Your task to perform on an android device: add a contact Image 0: 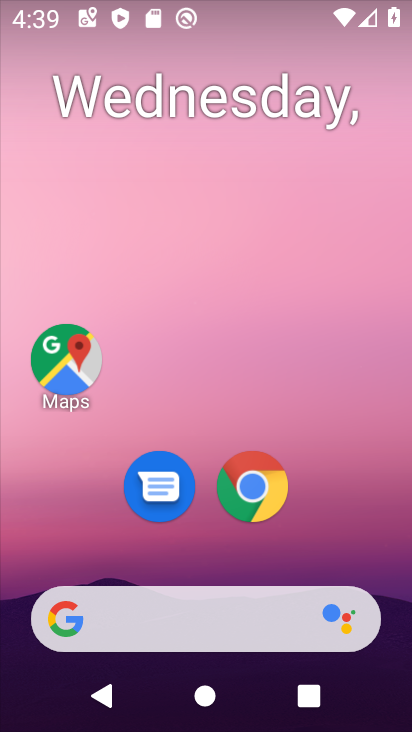
Step 0: drag from (156, 463) to (203, 126)
Your task to perform on an android device: add a contact Image 1: 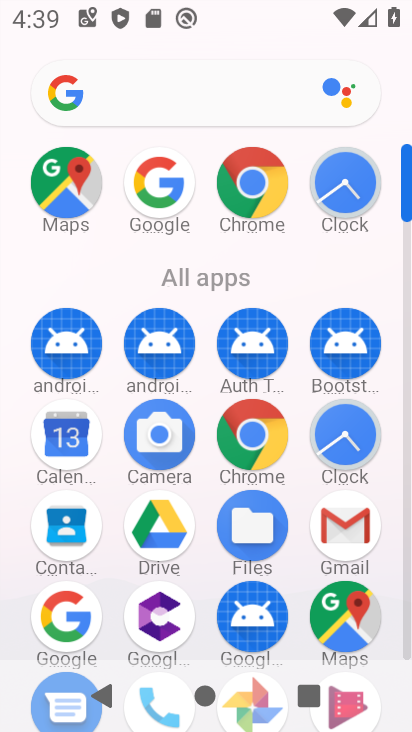
Step 1: click (79, 526)
Your task to perform on an android device: add a contact Image 2: 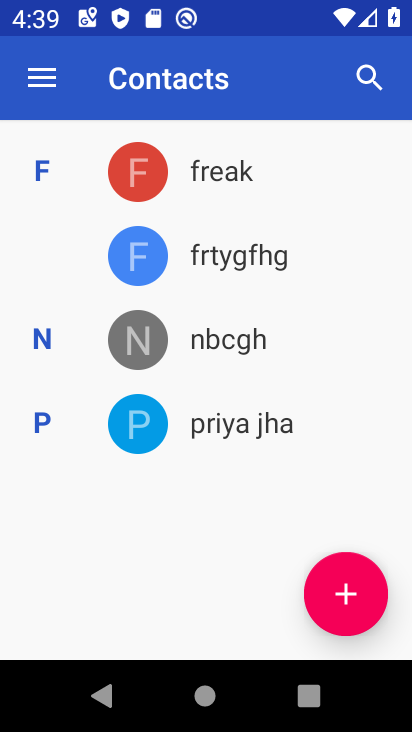
Step 2: click (335, 578)
Your task to perform on an android device: add a contact Image 3: 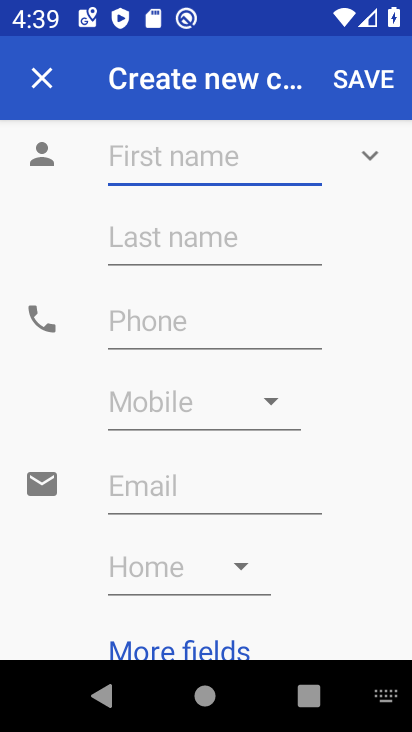
Step 3: type "jhfhjk"
Your task to perform on an android device: add a contact Image 4: 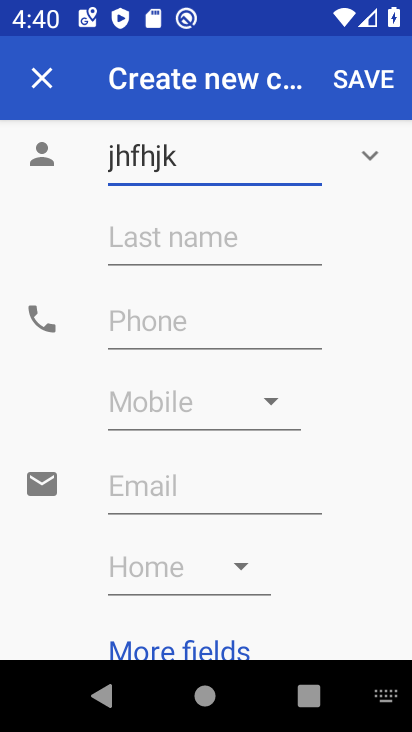
Step 4: click (160, 328)
Your task to perform on an android device: add a contact Image 5: 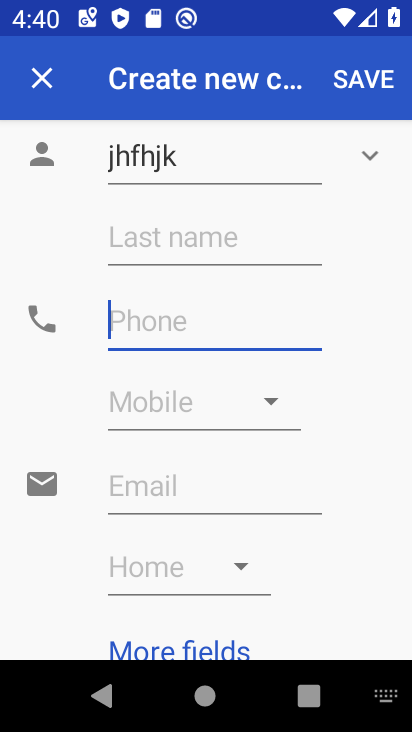
Step 5: type "3456776"
Your task to perform on an android device: add a contact Image 6: 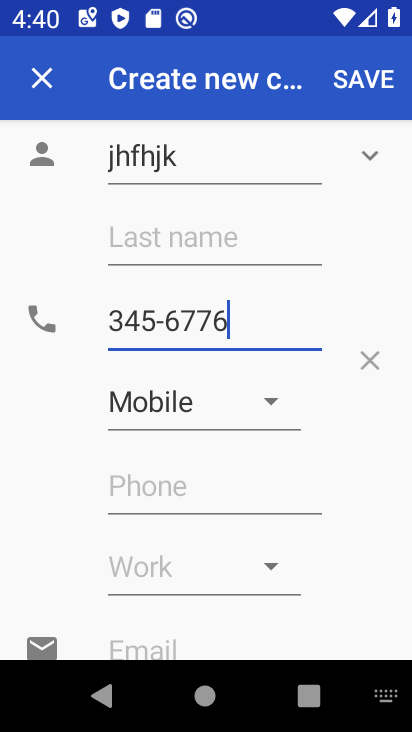
Step 6: type ""
Your task to perform on an android device: add a contact Image 7: 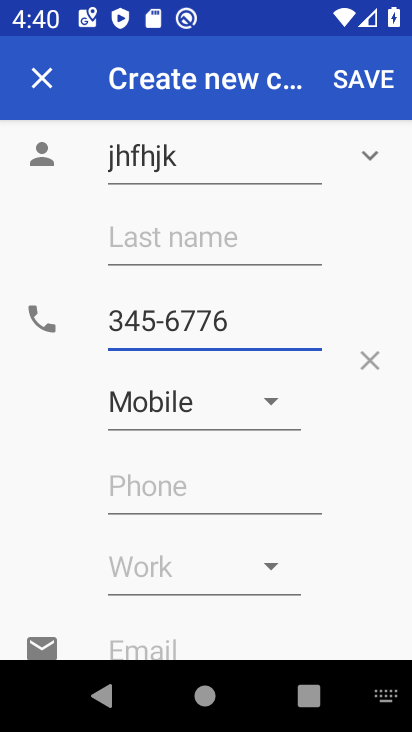
Step 7: click (354, 84)
Your task to perform on an android device: add a contact Image 8: 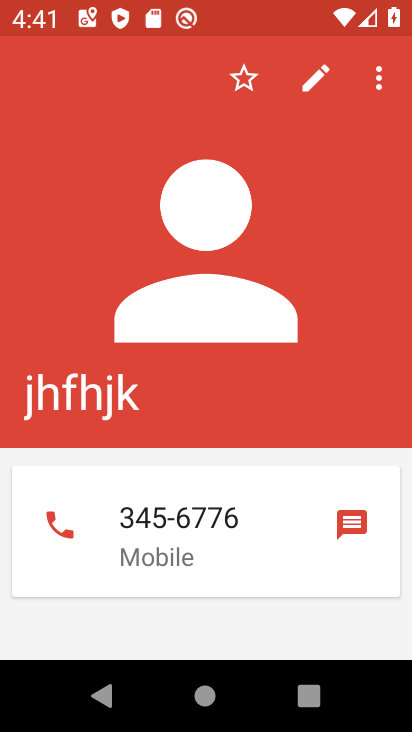
Step 8: task complete